Your task to perform on an android device: toggle translation in the chrome app Image 0: 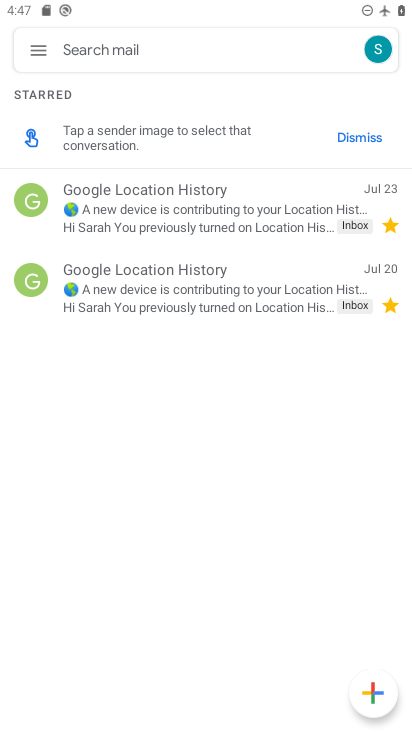
Step 0: press home button
Your task to perform on an android device: toggle translation in the chrome app Image 1: 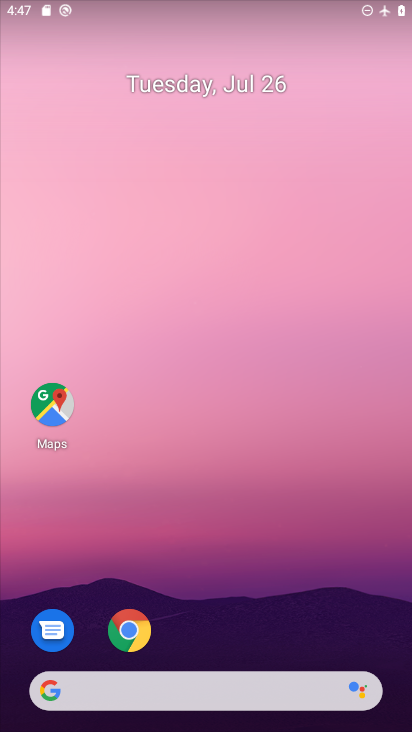
Step 1: click (136, 624)
Your task to perform on an android device: toggle translation in the chrome app Image 2: 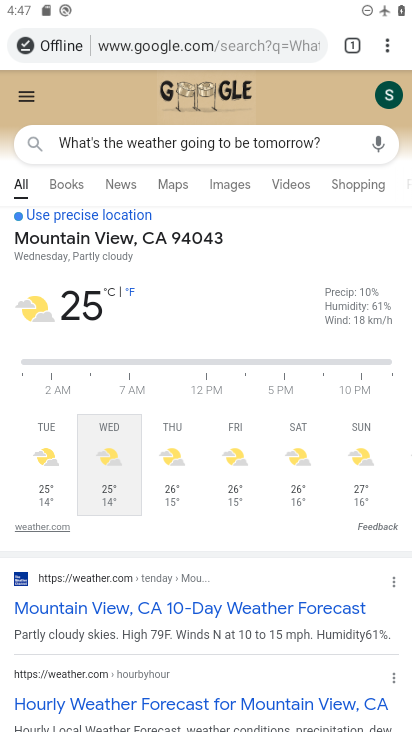
Step 2: click (393, 47)
Your task to perform on an android device: toggle translation in the chrome app Image 3: 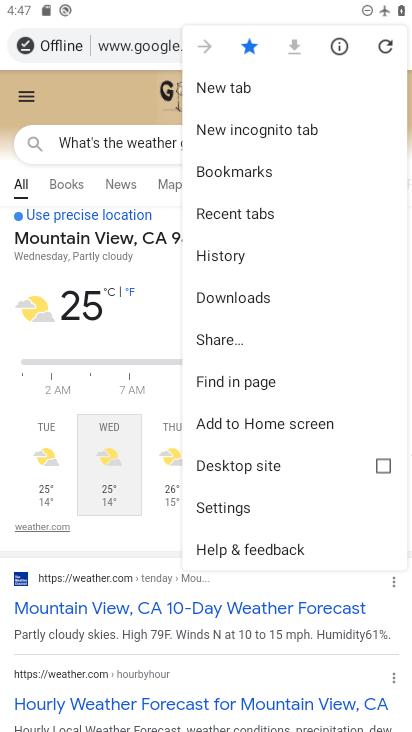
Step 3: click (249, 511)
Your task to perform on an android device: toggle translation in the chrome app Image 4: 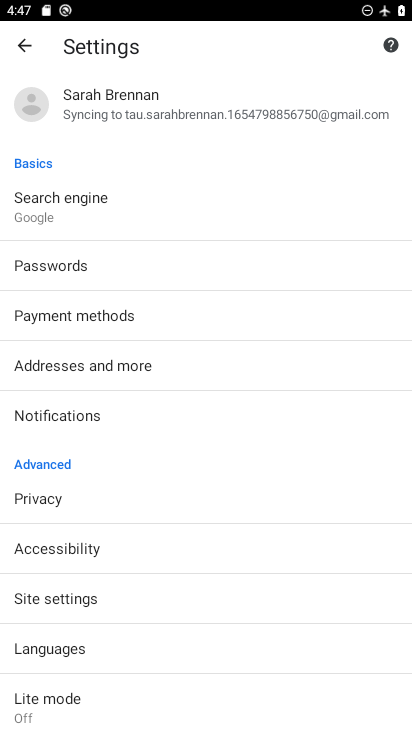
Step 4: click (216, 658)
Your task to perform on an android device: toggle translation in the chrome app Image 5: 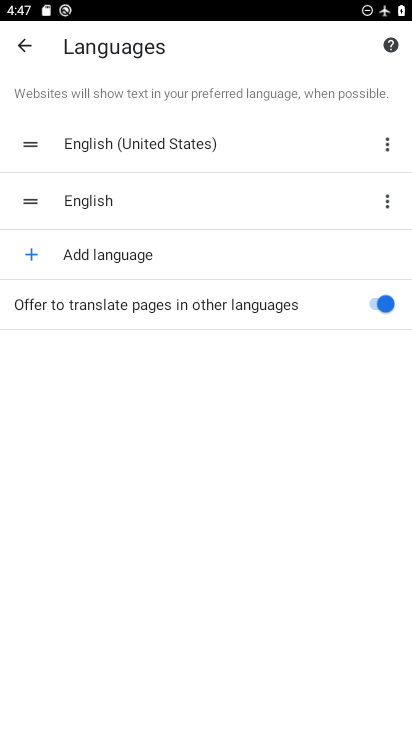
Step 5: click (376, 311)
Your task to perform on an android device: toggle translation in the chrome app Image 6: 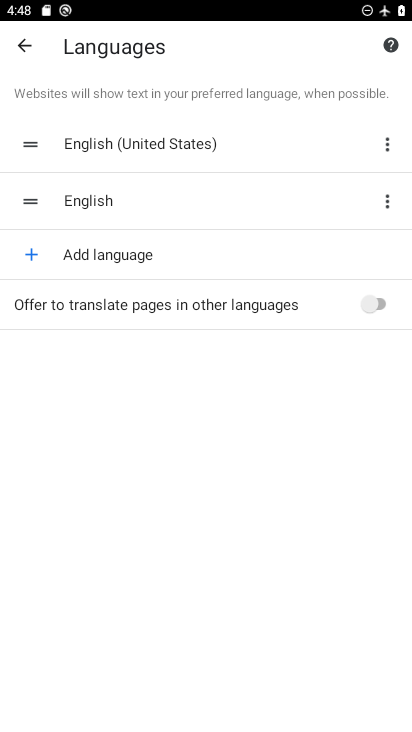
Step 6: task complete